Your task to perform on an android device: turn off notifications in google photos Image 0: 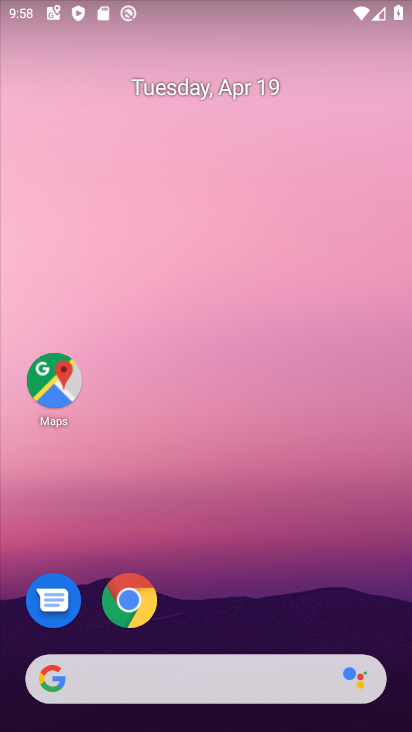
Step 0: drag from (246, 609) to (318, 342)
Your task to perform on an android device: turn off notifications in google photos Image 1: 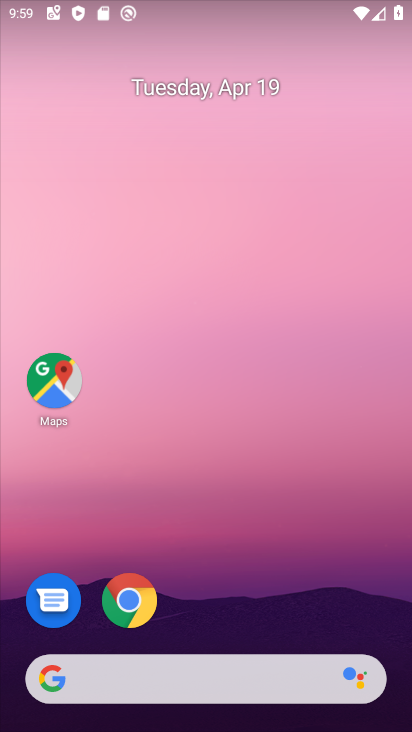
Step 1: drag from (283, 630) to (264, 72)
Your task to perform on an android device: turn off notifications in google photos Image 2: 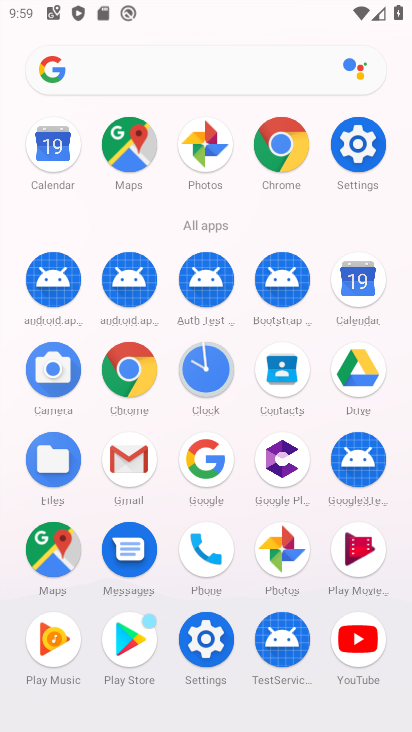
Step 2: click (283, 553)
Your task to perform on an android device: turn off notifications in google photos Image 3: 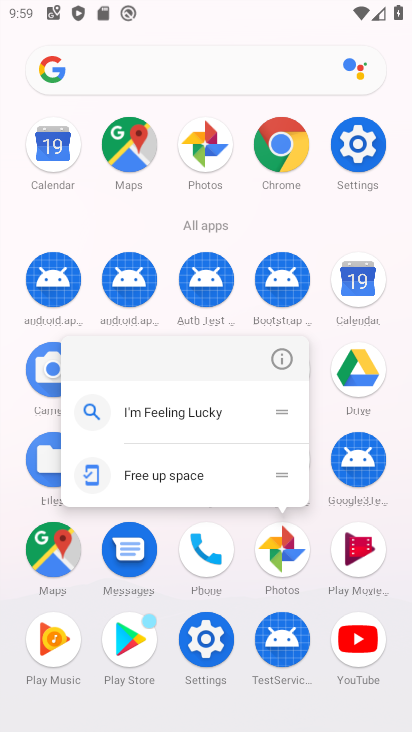
Step 3: click (283, 553)
Your task to perform on an android device: turn off notifications in google photos Image 4: 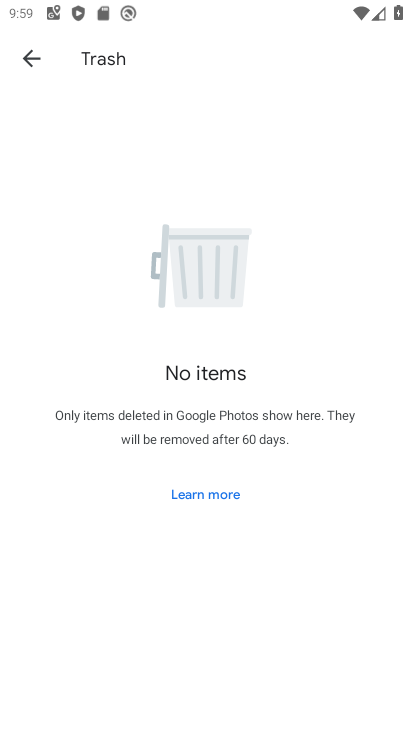
Step 4: click (31, 51)
Your task to perform on an android device: turn off notifications in google photos Image 5: 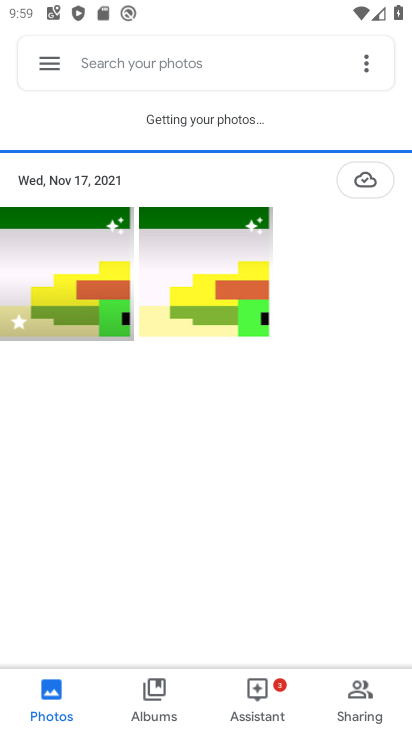
Step 5: click (31, 51)
Your task to perform on an android device: turn off notifications in google photos Image 6: 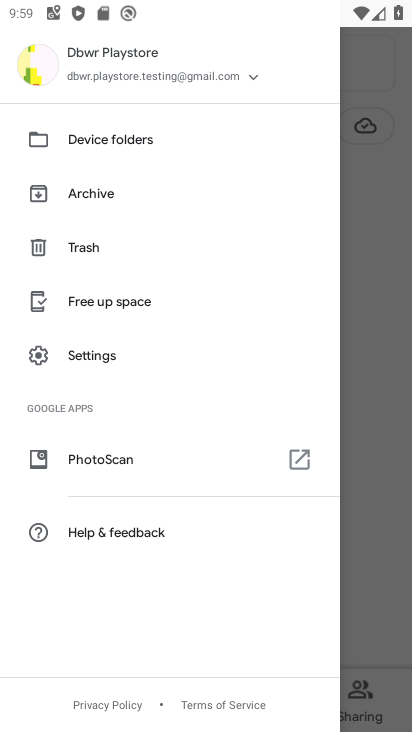
Step 6: click (137, 360)
Your task to perform on an android device: turn off notifications in google photos Image 7: 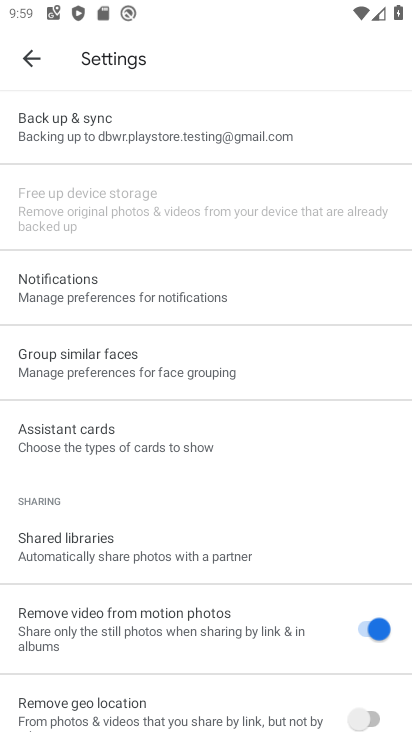
Step 7: click (177, 294)
Your task to perform on an android device: turn off notifications in google photos Image 8: 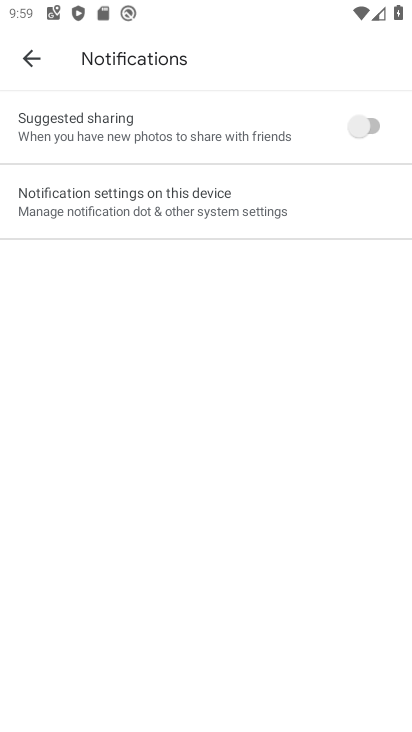
Step 8: task complete